Your task to perform on an android device: turn on priority inbox in the gmail app Image 0: 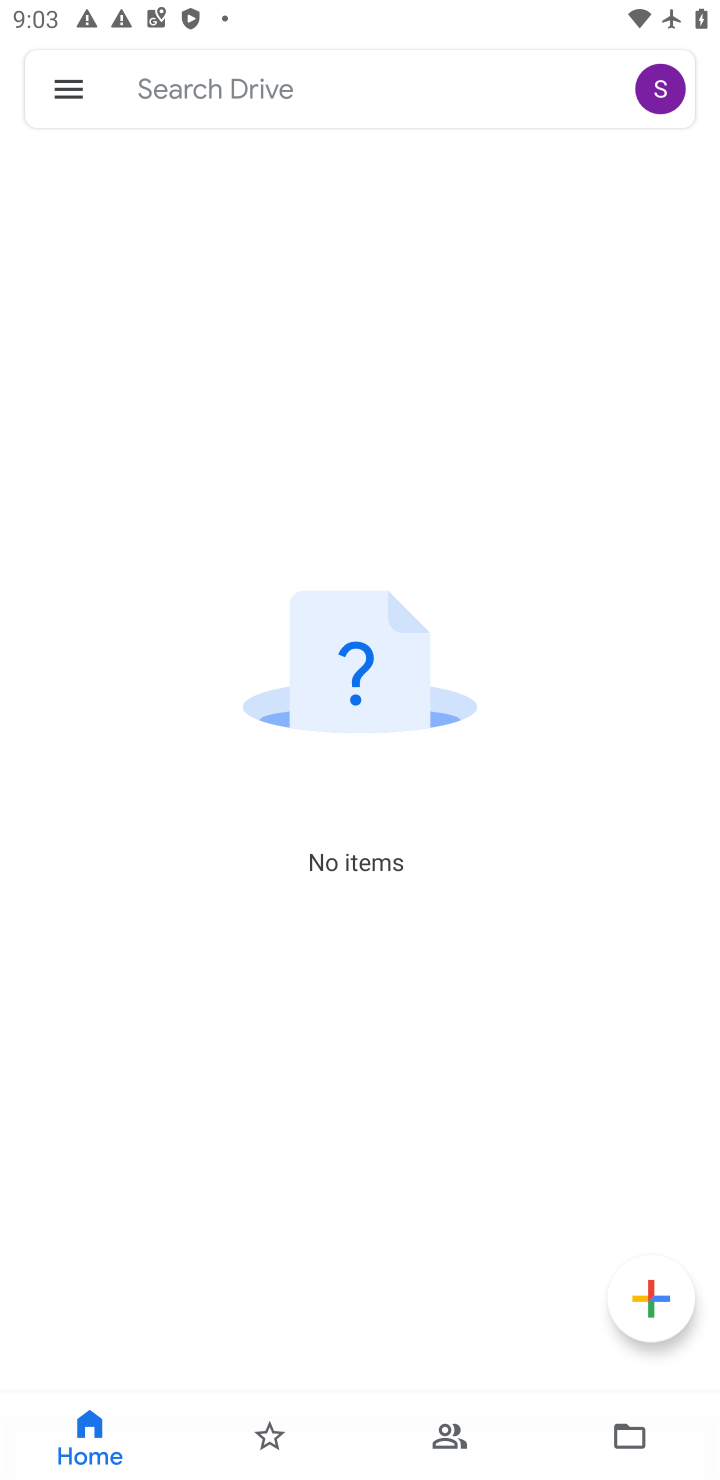
Step 0: press home button
Your task to perform on an android device: turn on priority inbox in the gmail app Image 1: 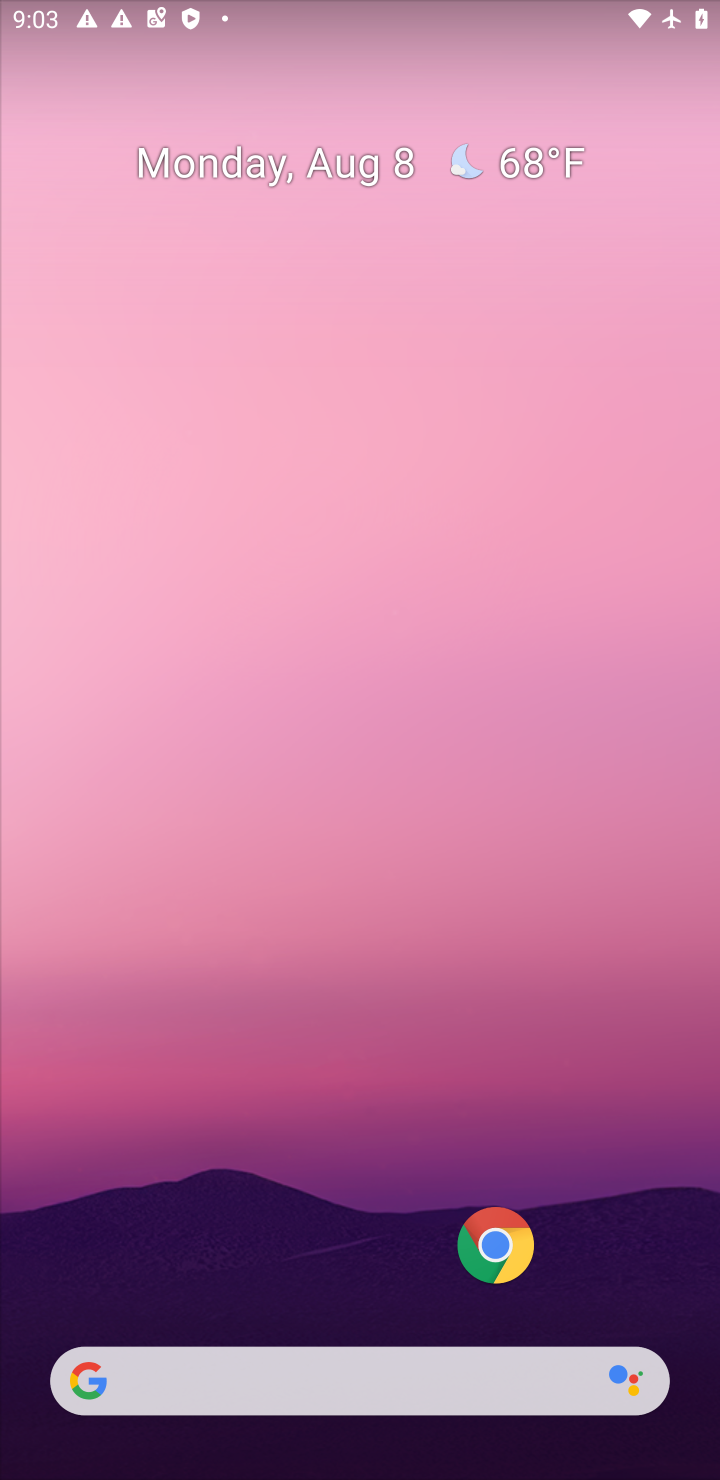
Step 1: drag from (288, 1296) to (214, 39)
Your task to perform on an android device: turn on priority inbox in the gmail app Image 2: 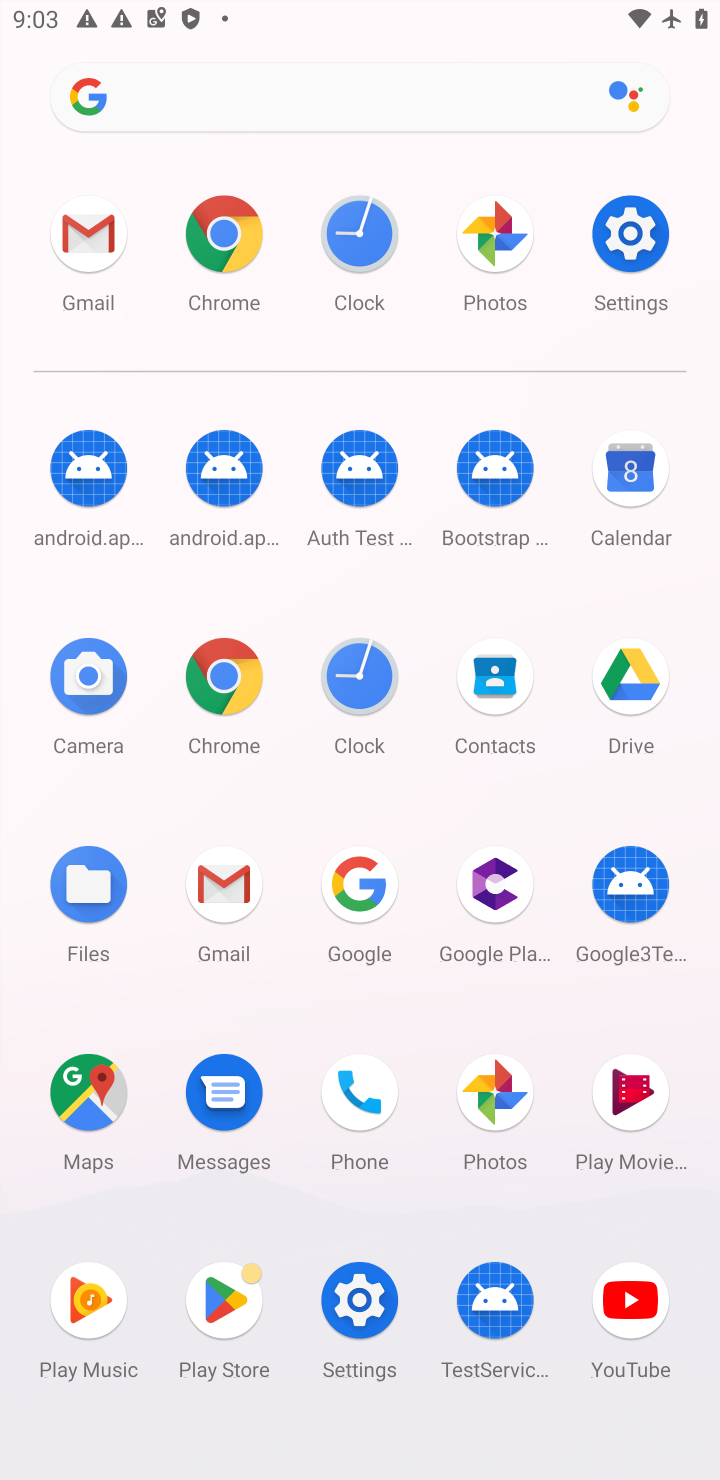
Step 2: click (212, 895)
Your task to perform on an android device: turn on priority inbox in the gmail app Image 3: 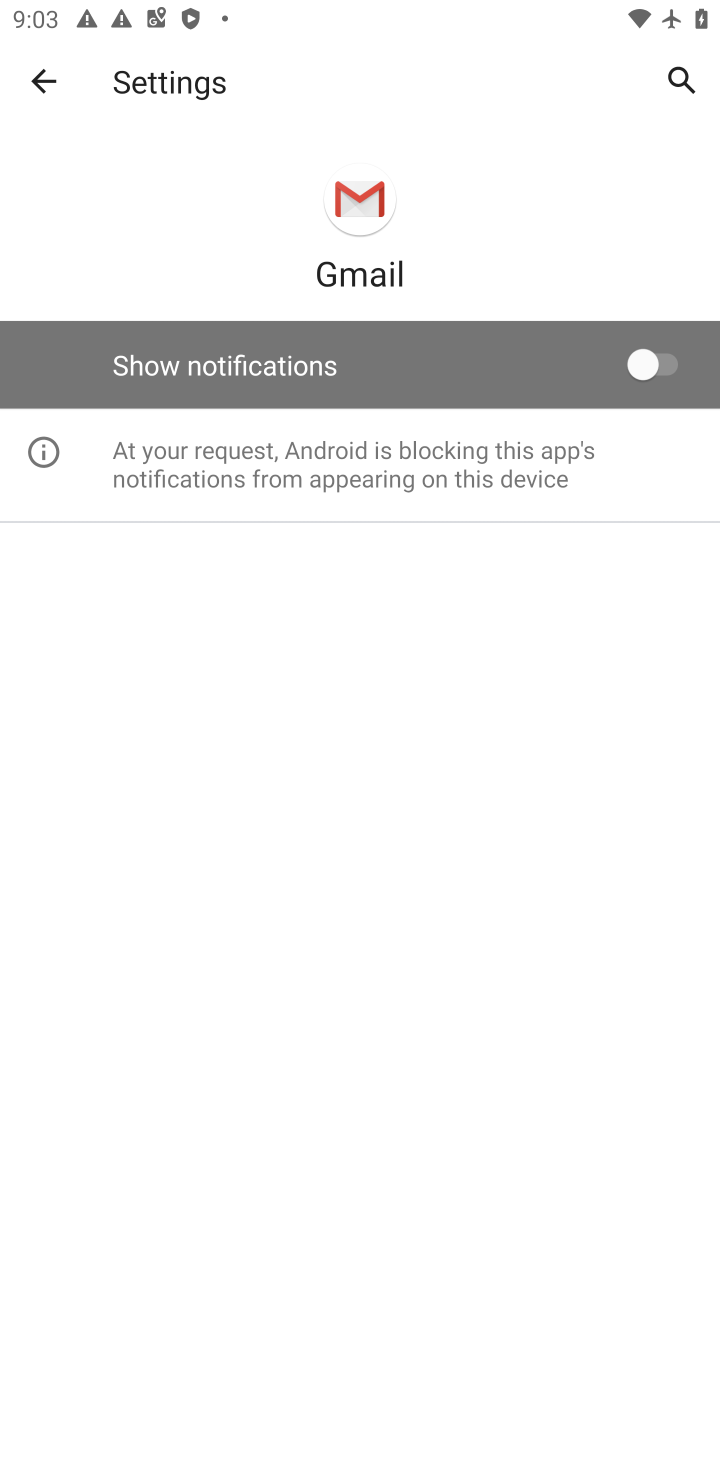
Step 3: click (29, 61)
Your task to perform on an android device: turn on priority inbox in the gmail app Image 4: 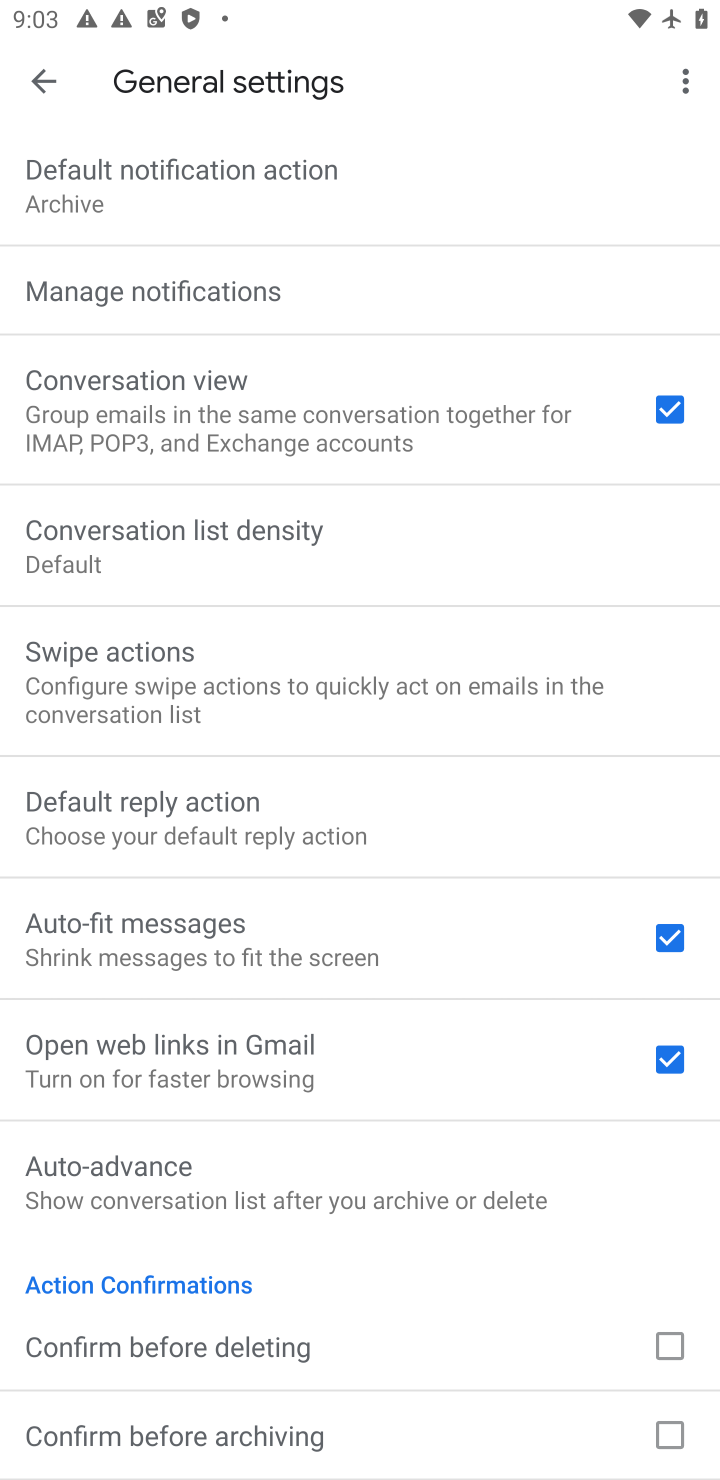
Step 4: click (29, 63)
Your task to perform on an android device: turn on priority inbox in the gmail app Image 5: 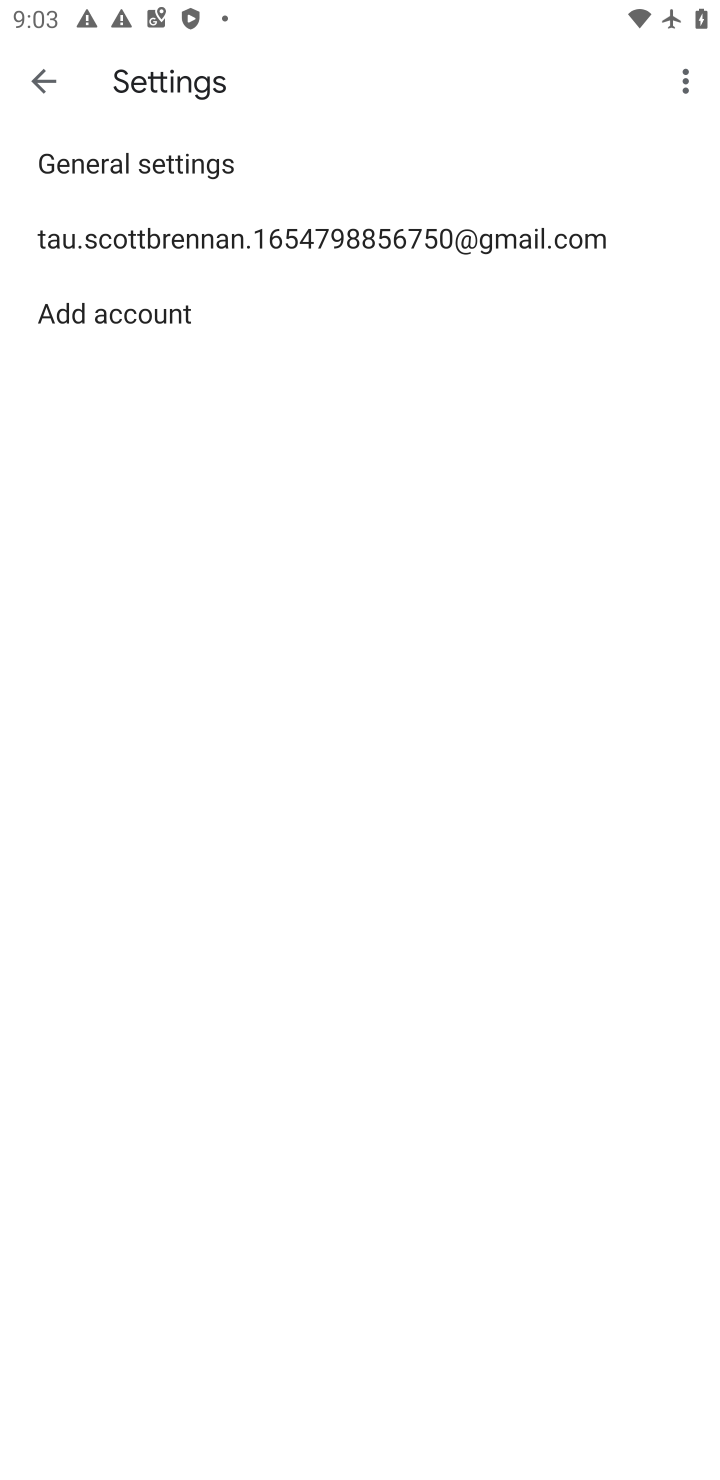
Step 5: click (119, 238)
Your task to perform on an android device: turn on priority inbox in the gmail app Image 6: 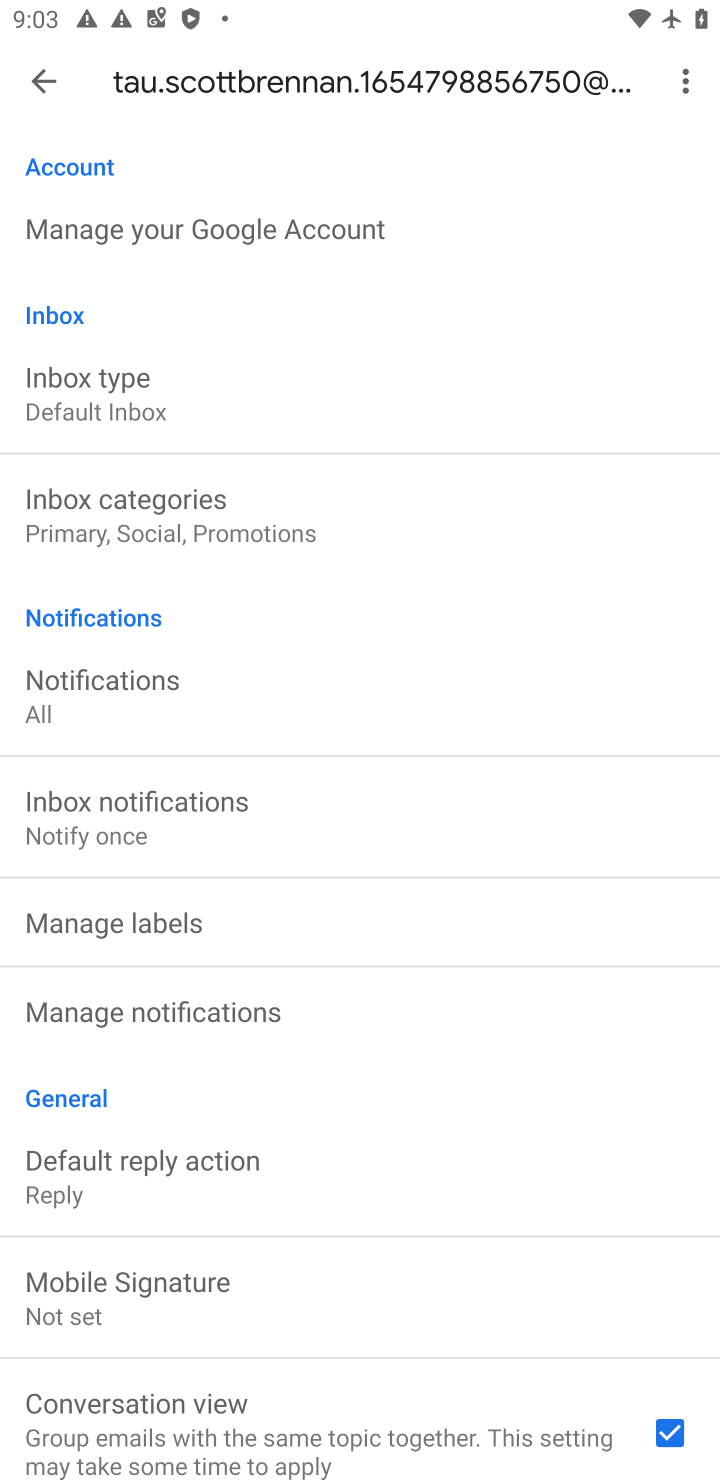
Step 6: click (167, 415)
Your task to perform on an android device: turn on priority inbox in the gmail app Image 7: 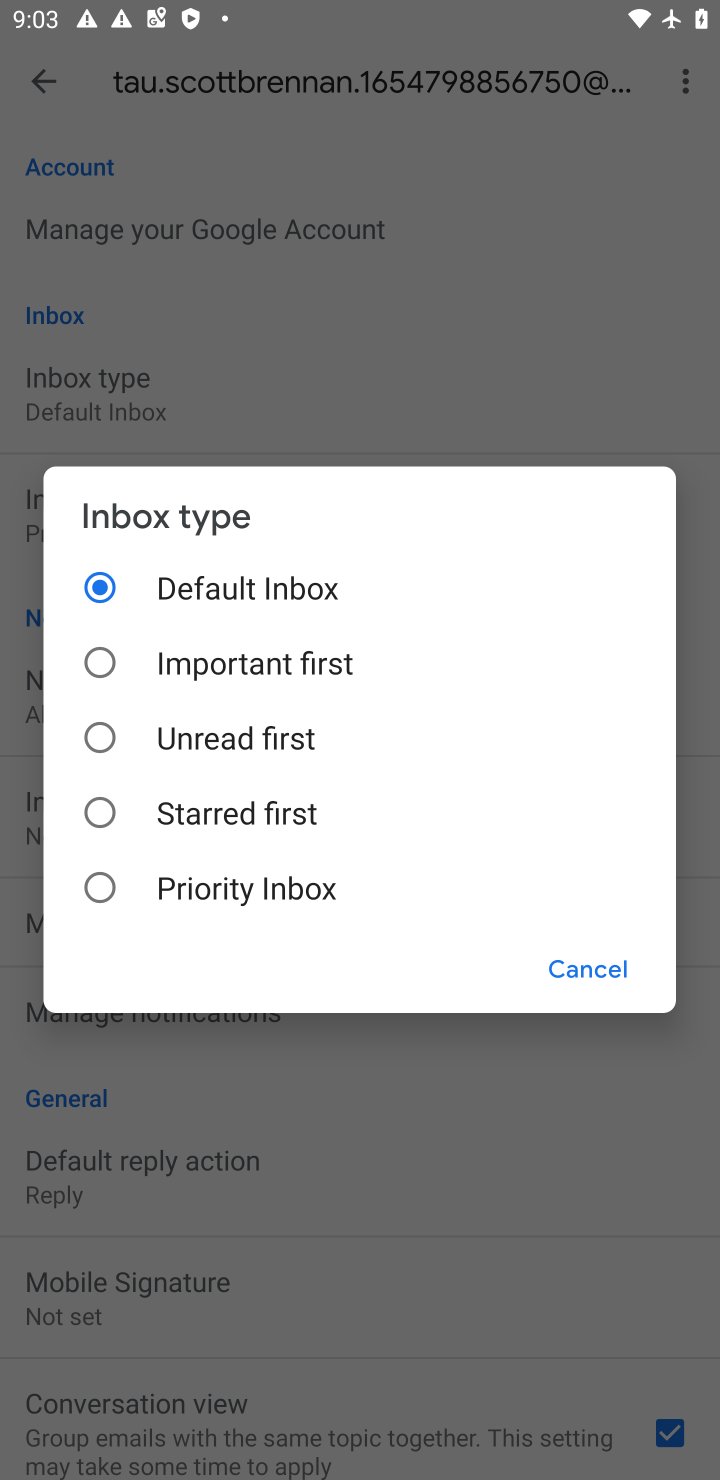
Step 7: click (205, 896)
Your task to perform on an android device: turn on priority inbox in the gmail app Image 8: 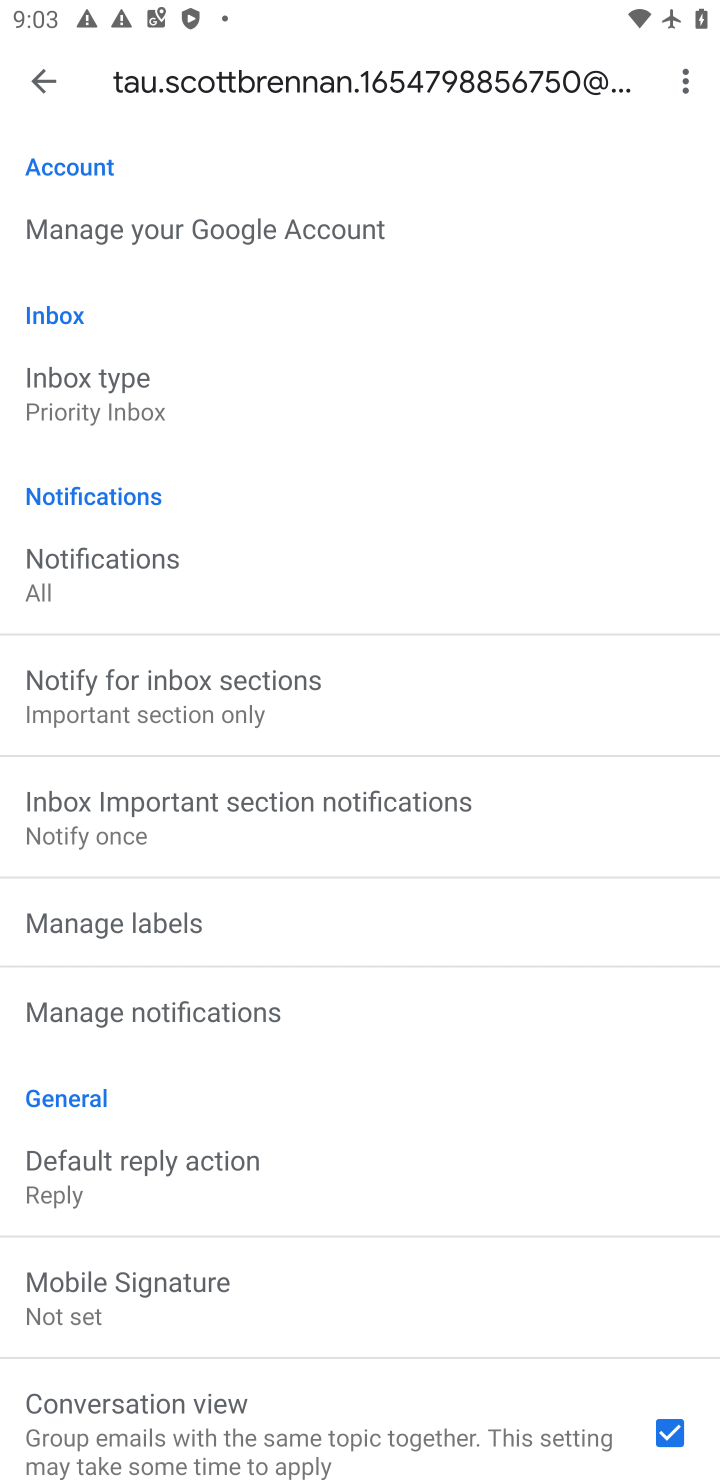
Step 8: task complete